Your task to perform on an android device: turn on the 12-hour format for clock Image 0: 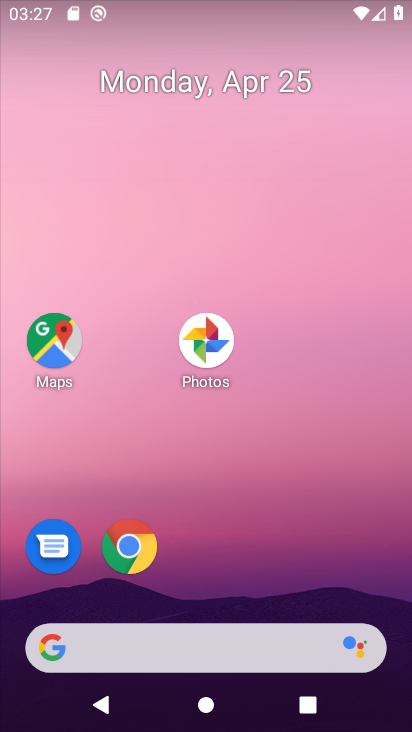
Step 0: drag from (277, 477) to (289, 199)
Your task to perform on an android device: turn on the 12-hour format for clock Image 1: 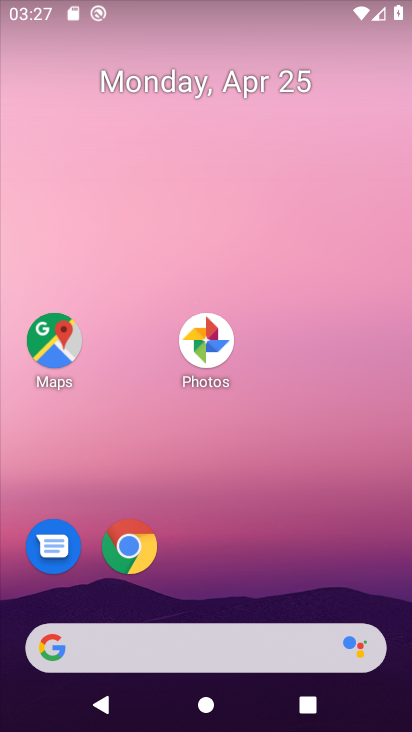
Step 1: drag from (298, 500) to (281, 232)
Your task to perform on an android device: turn on the 12-hour format for clock Image 2: 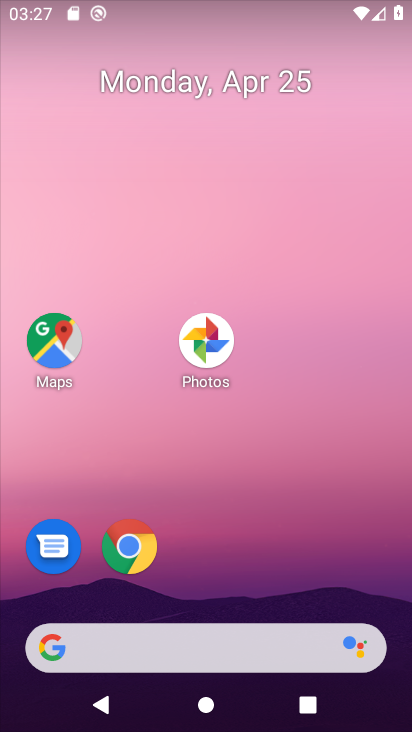
Step 2: drag from (297, 472) to (305, 208)
Your task to perform on an android device: turn on the 12-hour format for clock Image 3: 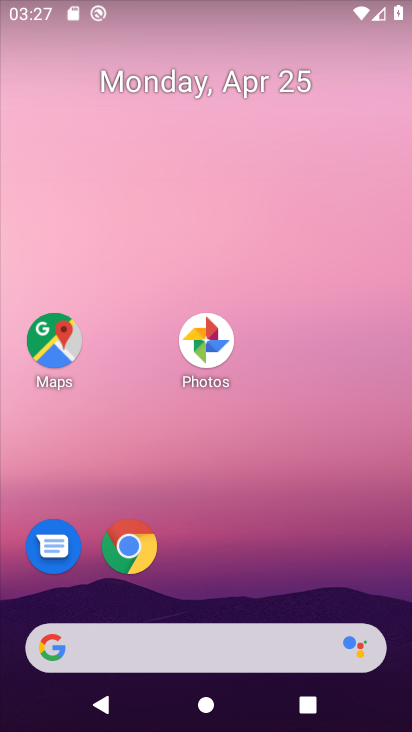
Step 3: drag from (287, 480) to (301, 172)
Your task to perform on an android device: turn on the 12-hour format for clock Image 4: 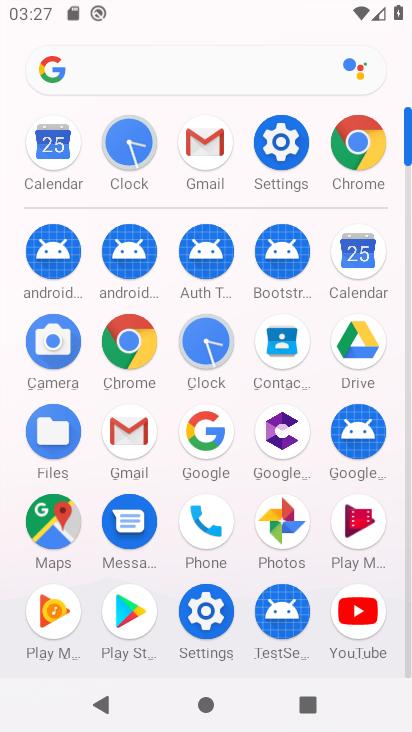
Step 4: click (195, 340)
Your task to perform on an android device: turn on the 12-hour format for clock Image 5: 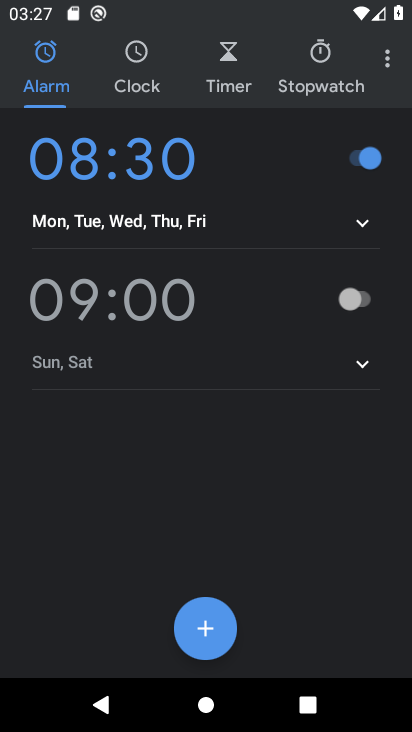
Step 5: click (386, 47)
Your task to perform on an android device: turn on the 12-hour format for clock Image 6: 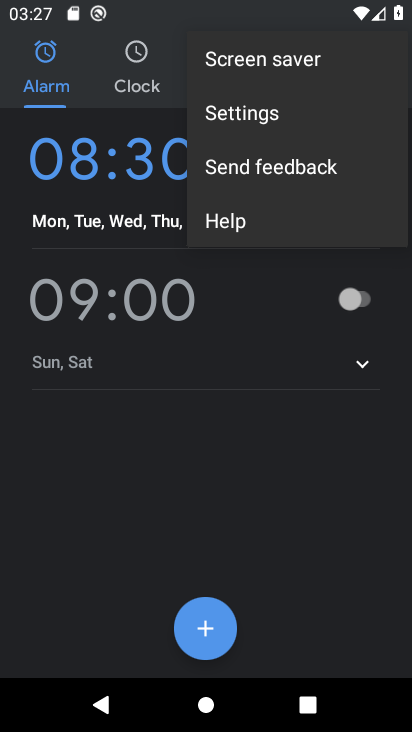
Step 6: click (299, 111)
Your task to perform on an android device: turn on the 12-hour format for clock Image 7: 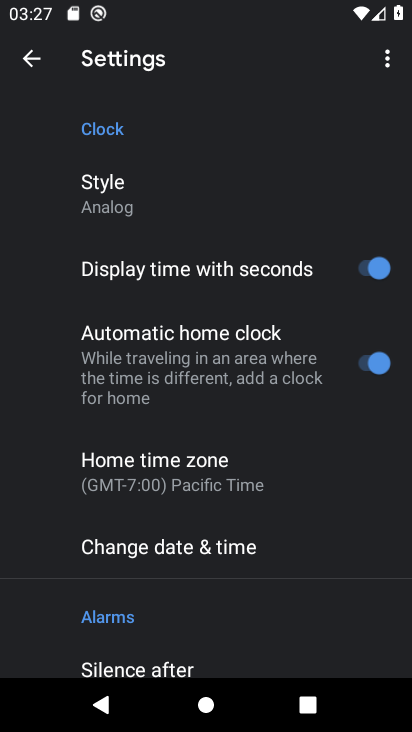
Step 7: drag from (234, 592) to (240, 420)
Your task to perform on an android device: turn on the 12-hour format for clock Image 8: 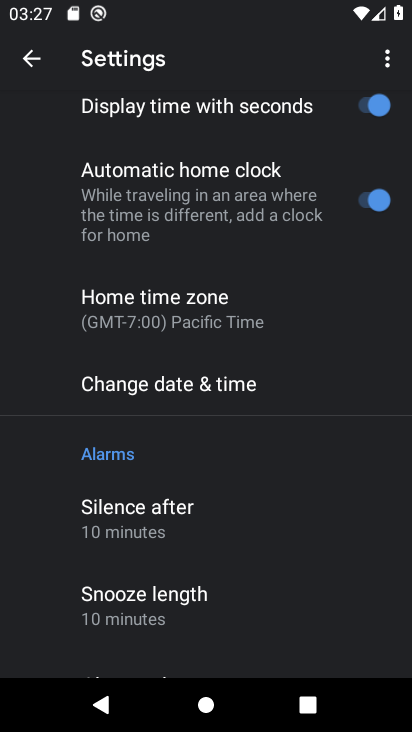
Step 8: click (222, 383)
Your task to perform on an android device: turn on the 12-hour format for clock Image 9: 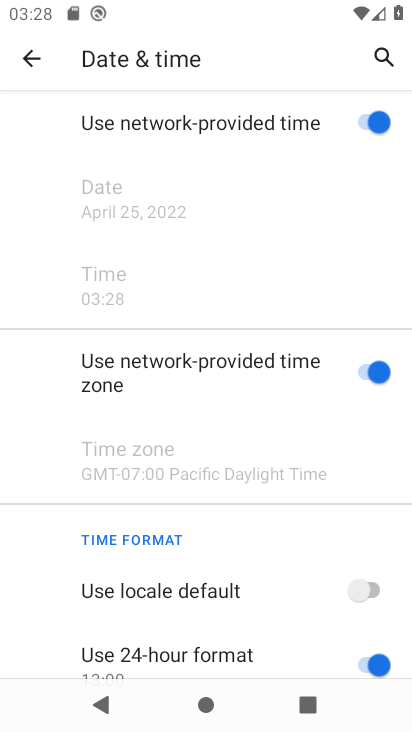
Step 9: task complete